Your task to perform on an android device: turn on showing notifications on the lock screen Image 0: 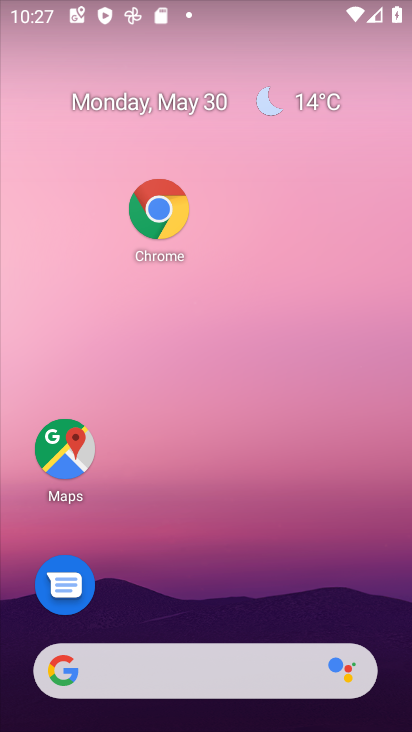
Step 0: drag from (212, 605) to (263, 158)
Your task to perform on an android device: turn on showing notifications on the lock screen Image 1: 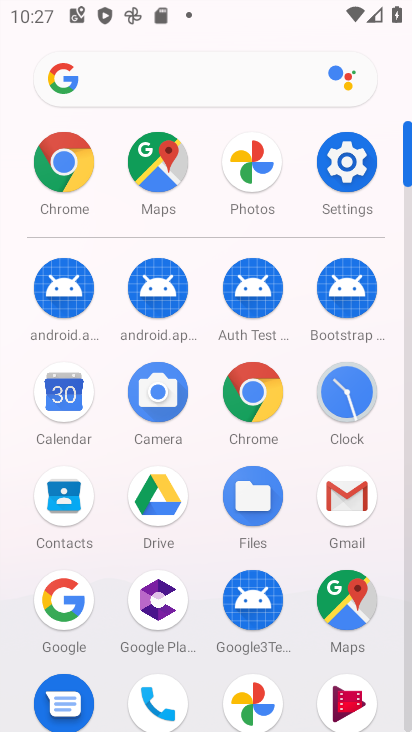
Step 1: click (338, 167)
Your task to perform on an android device: turn on showing notifications on the lock screen Image 2: 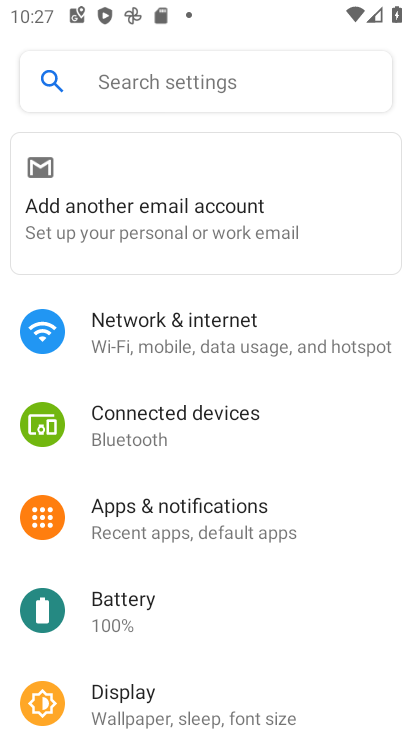
Step 2: click (222, 510)
Your task to perform on an android device: turn on showing notifications on the lock screen Image 3: 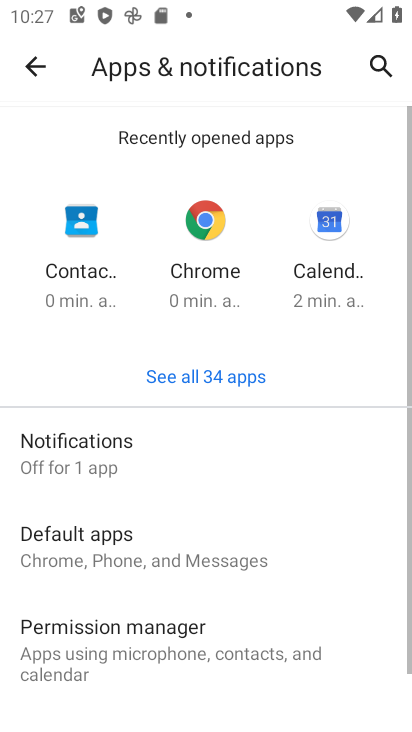
Step 3: click (122, 443)
Your task to perform on an android device: turn on showing notifications on the lock screen Image 4: 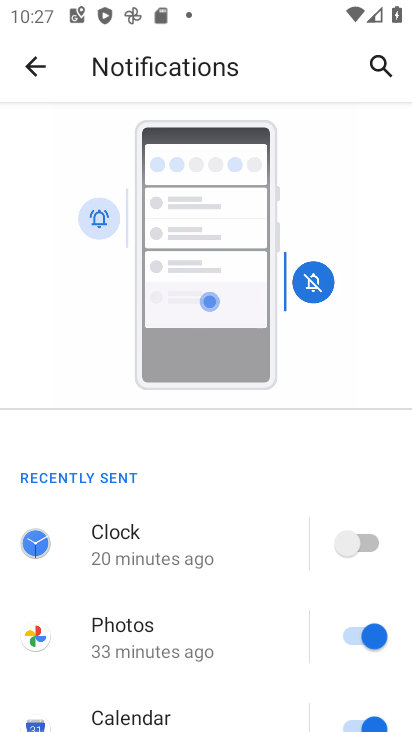
Step 4: drag from (182, 600) to (212, 65)
Your task to perform on an android device: turn on showing notifications on the lock screen Image 5: 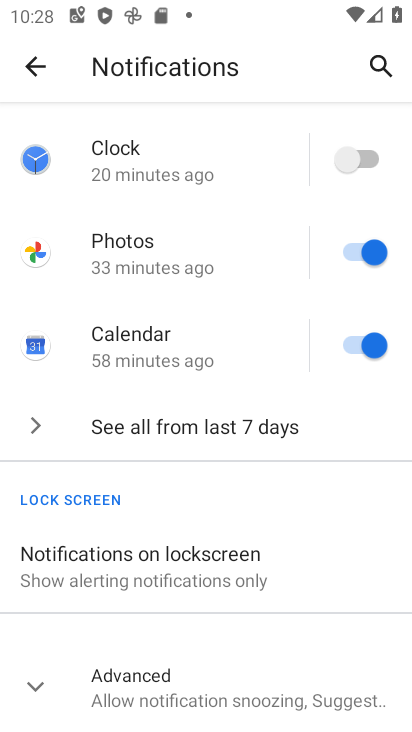
Step 5: click (183, 565)
Your task to perform on an android device: turn on showing notifications on the lock screen Image 6: 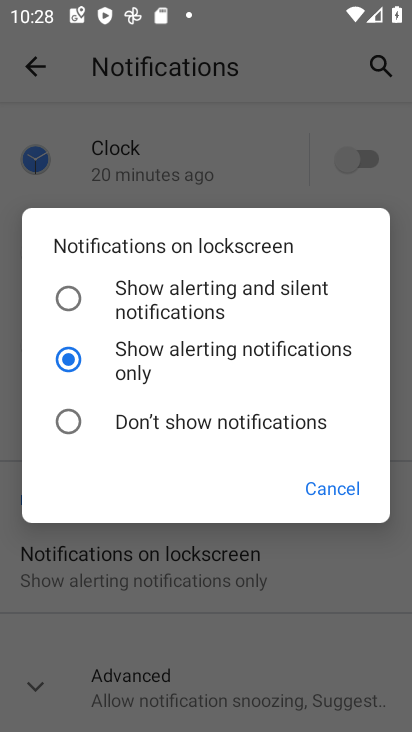
Step 6: click (143, 314)
Your task to perform on an android device: turn on showing notifications on the lock screen Image 7: 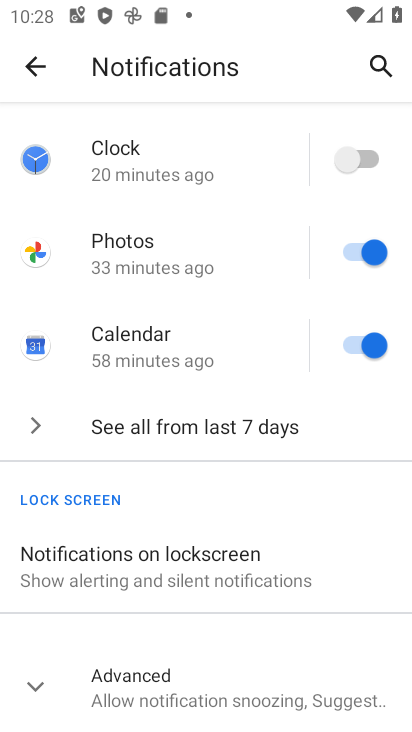
Step 7: task complete